Your task to perform on an android device: Open calendar and show me the second week of next month Image 0: 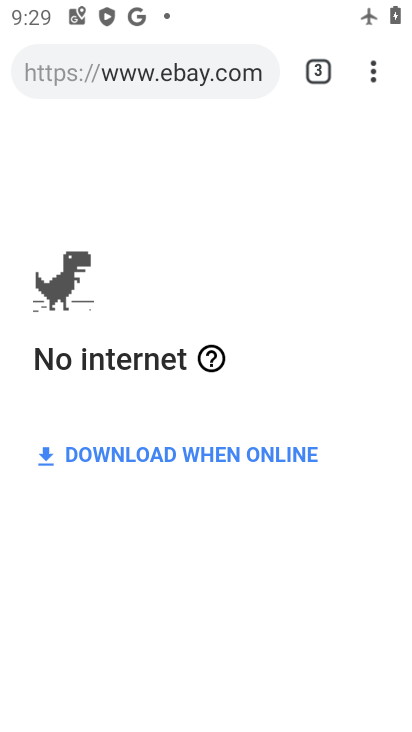
Step 0: press home button
Your task to perform on an android device: Open calendar and show me the second week of next month Image 1: 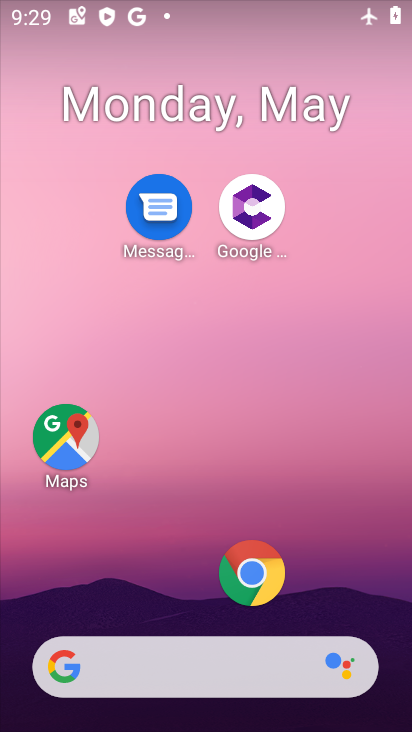
Step 1: drag from (217, 662) to (372, 193)
Your task to perform on an android device: Open calendar and show me the second week of next month Image 2: 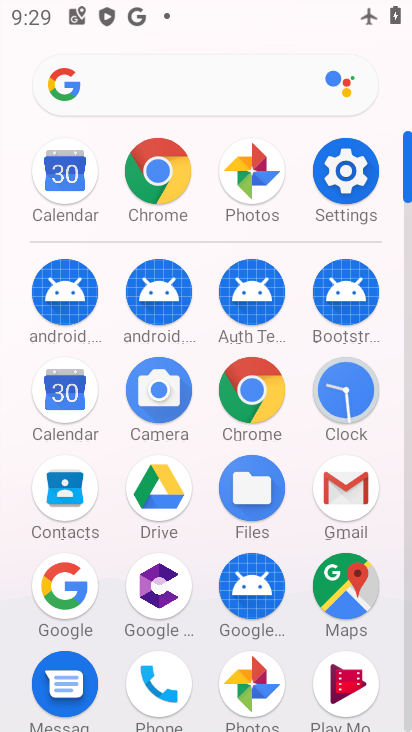
Step 2: click (66, 415)
Your task to perform on an android device: Open calendar and show me the second week of next month Image 3: 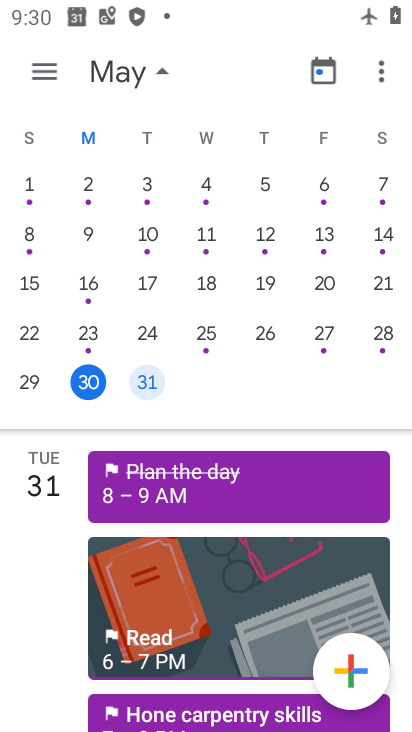
Step 3: drag from (342, 272) to (3, 240)
Your task to perform on an android device: Open calendar and show me the second week of next month Image 4: 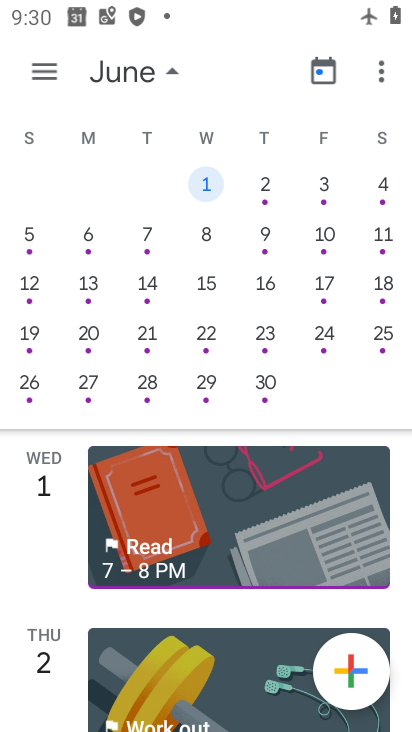
Step 4: click (30, 246)
Your task to perform on an android device: Open calendar and show me the second week of next month Image 5: 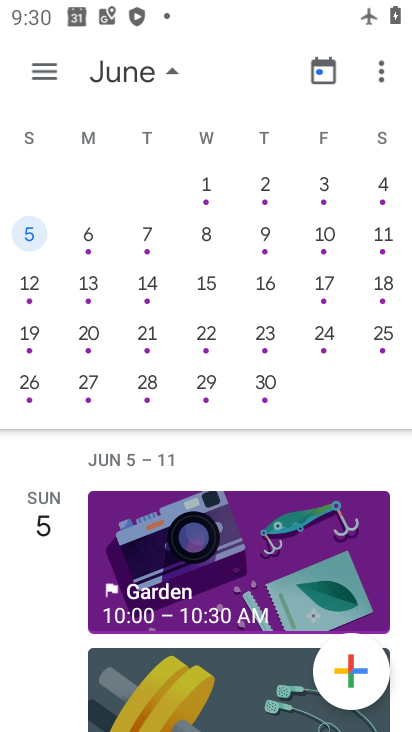
Step 5: task complete